Your task to perform on an android device: Search for vegetarian restaurants on Maps Image 0: 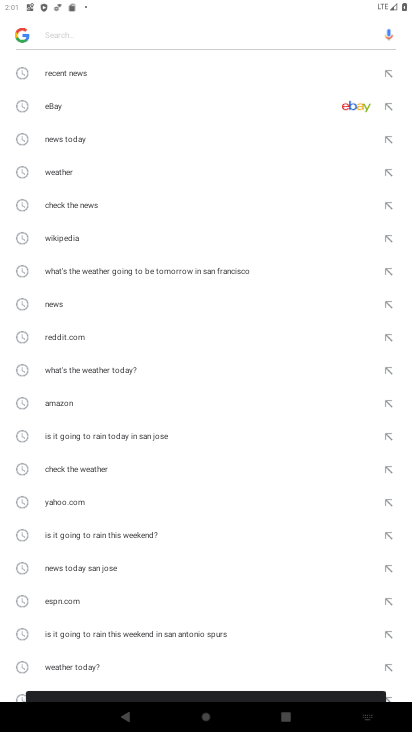
Step 0: press home button
Your task to perform on an android device: Search for vegetarian restaurants on Maps Image 1: 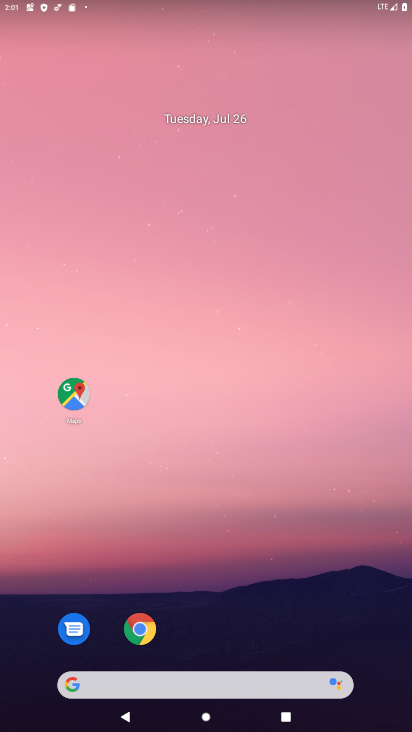
Step 1: click (89, 381)
Your task to perform on an android device: Search for vegetarian restaurants on Maps Image 2: 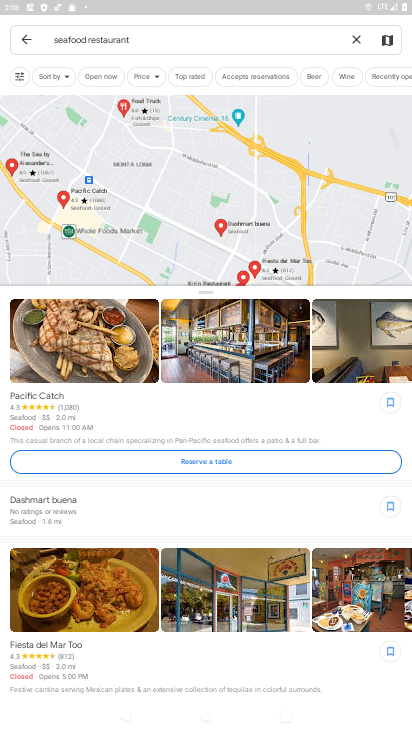
Step 2: click (355, 39)
Your task to perform on an android device: Search for vegetarian restaurants on Maps Image 3: 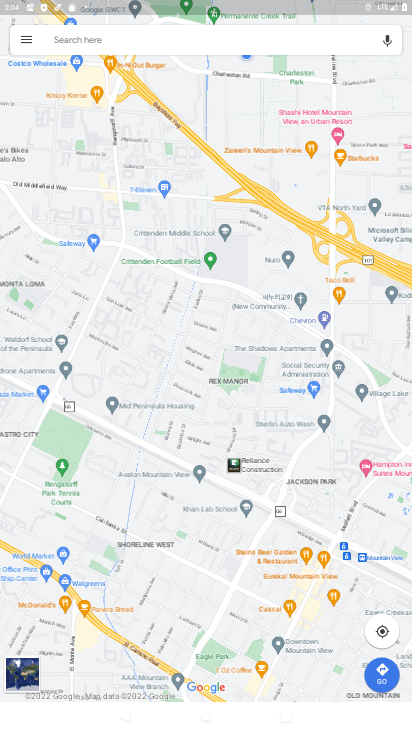
Step 3: click (277, 308)
Your task to perform on an android device: Search for vegetarian restaurants on Maps Image 4: 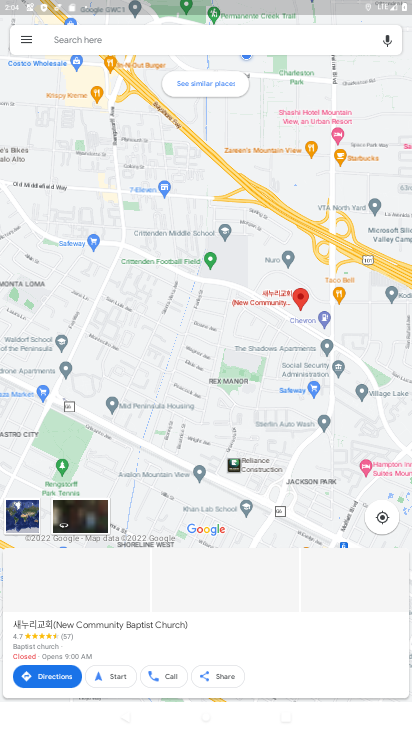
Step 4: click (190, 43)
Your task to perform on an android device: Search for vegetarian restaurants on Maps Image 5: 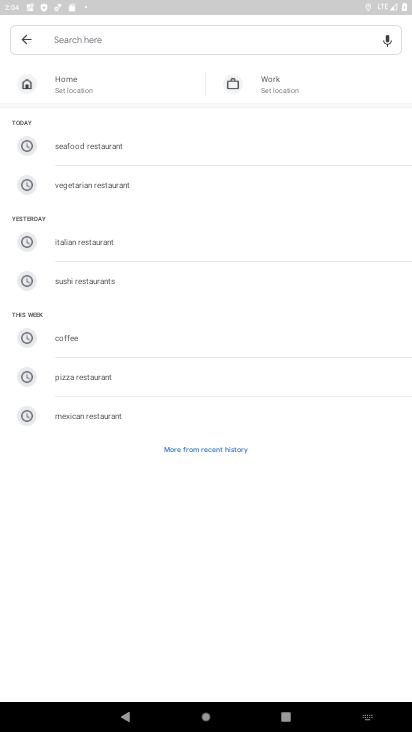
Step 5: type "vegetarian restaurants"
Your task to perform on an android device: Search for vegetarian restaurants on Maps Image 6: 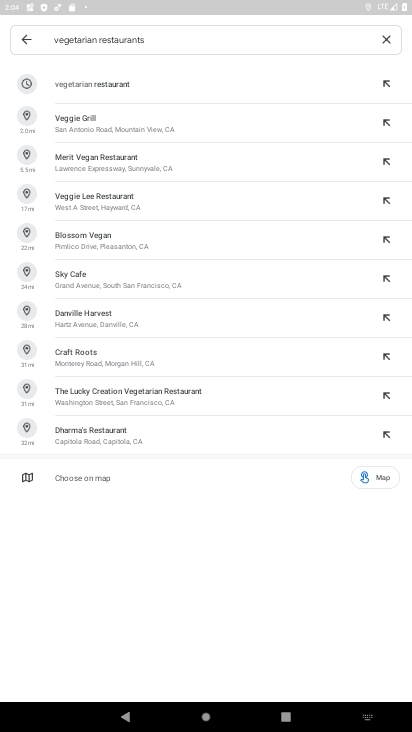
Step 6: click (136, 87)
Your task to perform on an android device: Search for vegetarian restaurants on Maps Image 7: 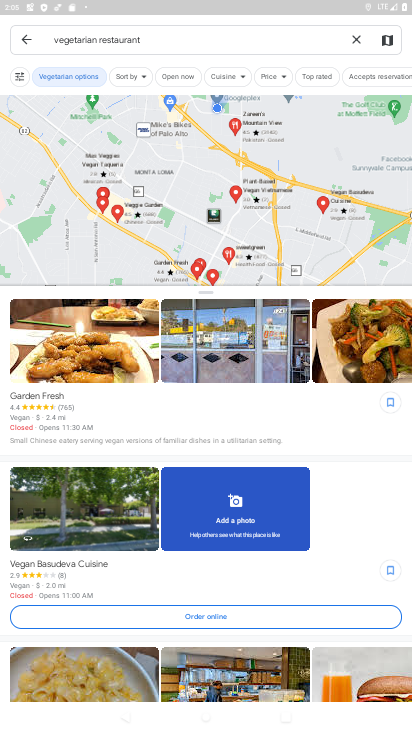
Step 7: task complete